Your task to perform on an android device: change keyboard looks Image 0: 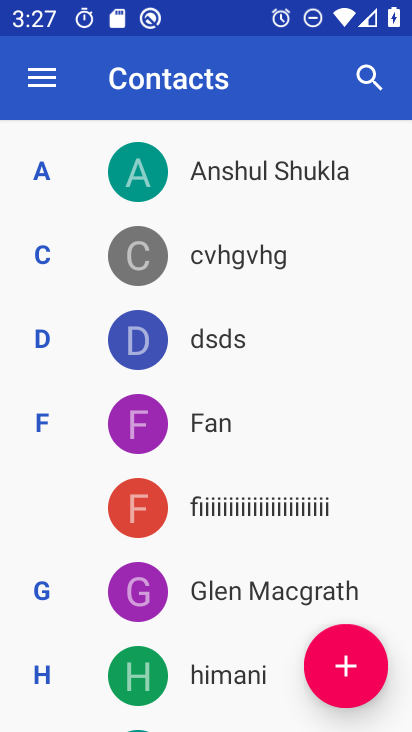
Step 0: press home button
Your task to perform on an android device: change keyboard looks Image 1: 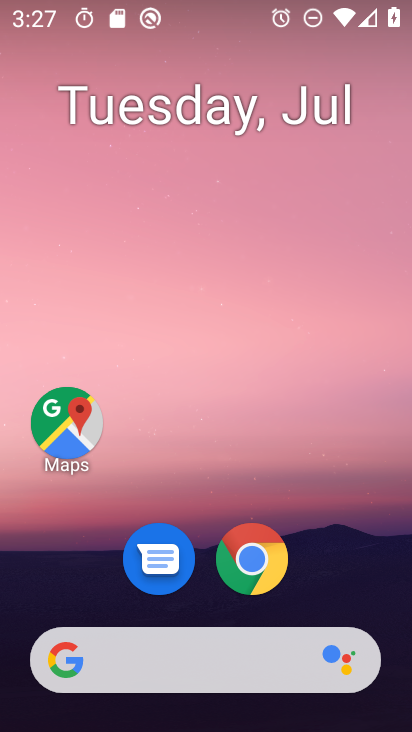
Step 1: drag from (371, 593) to (385, 133)
Your task to perform on an android device: change keyboard looks Image 2: 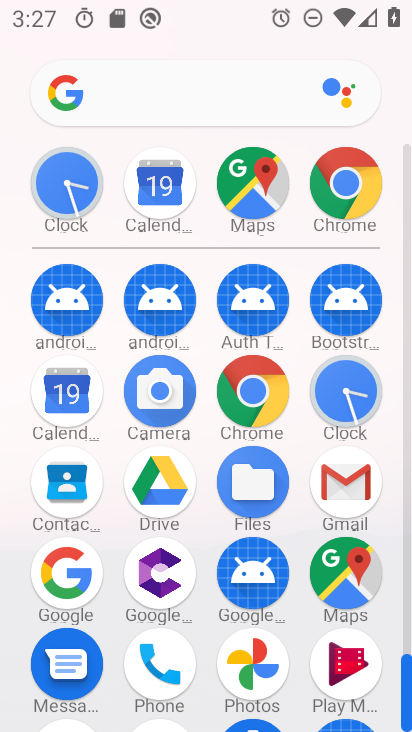
Step 2: drag from (206, 539) to (204, 433)
Your task to perform on an android device: change keyboard looks Image 3: 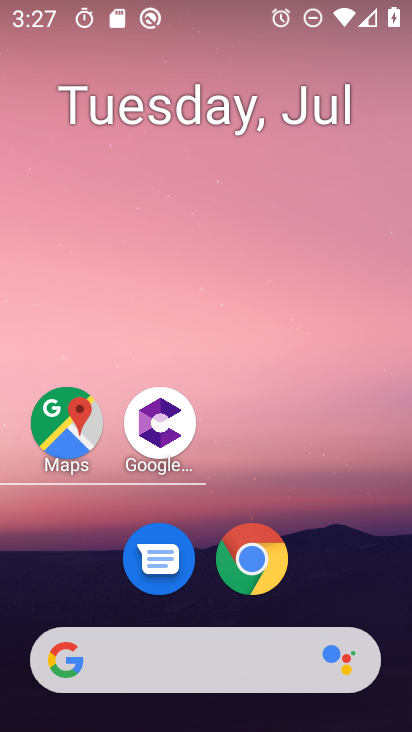
Step 3: drag from (353, 558) to (363, 109)
Your task to perform on an android device: change keyboard looks Image 4: 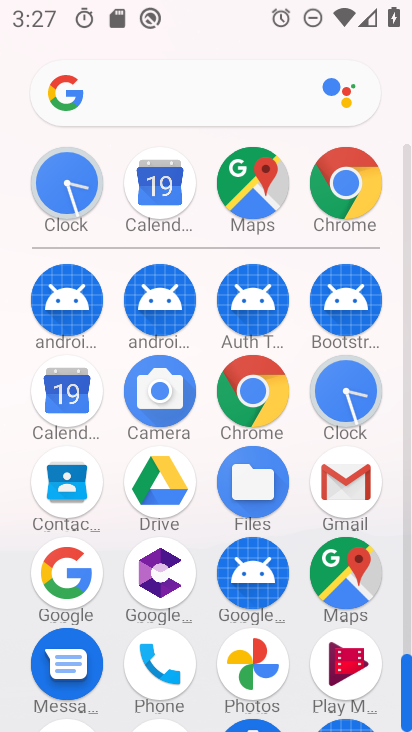
Step 4: drag from (393, 538) to (408, 424)
Your task to perform on an android device: change keyboard looks Image 5: 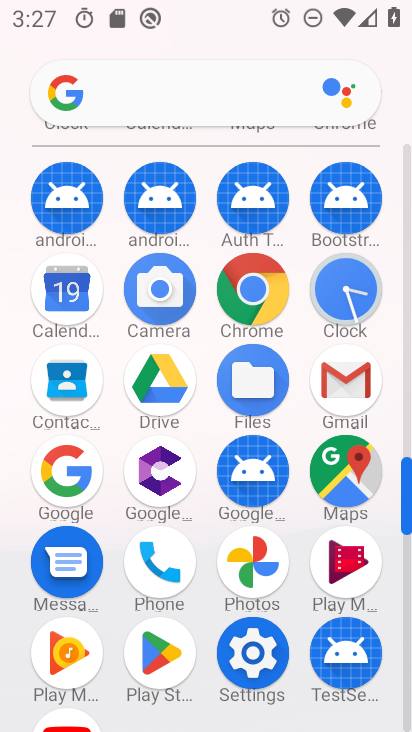
Step 5: click (245, 648)
Your task to perform on an android device: change keyboard looks Image 6: 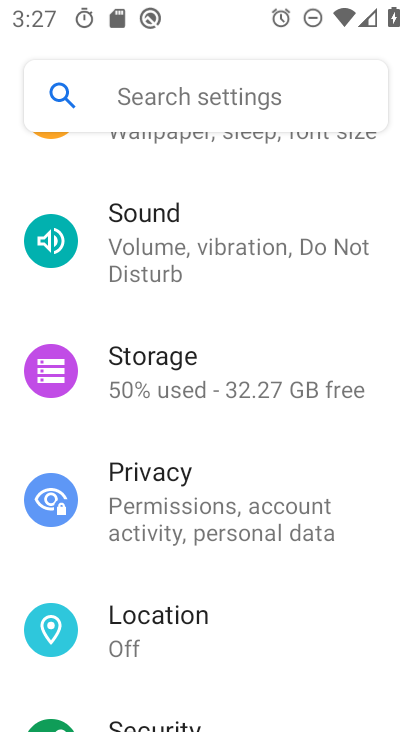
Step 6: drag from (381, 513) to (384, 431)
Your task to perform on an android device: change keyboard looks Image 7: 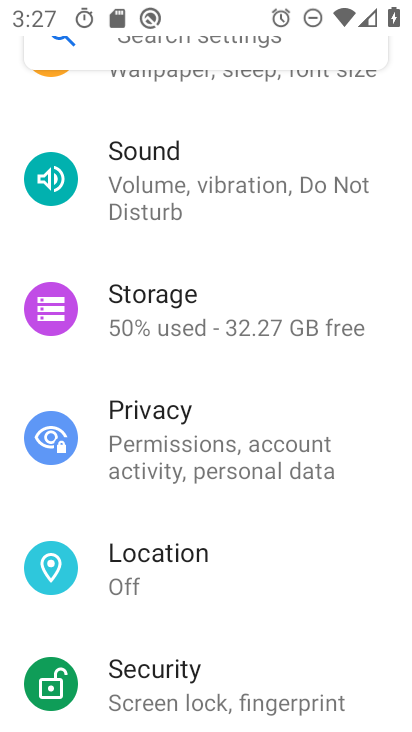
Step 7: drag from (371, 545) to (371, 455)
Your task to perform on an android device: change keyboard looks Image 8: 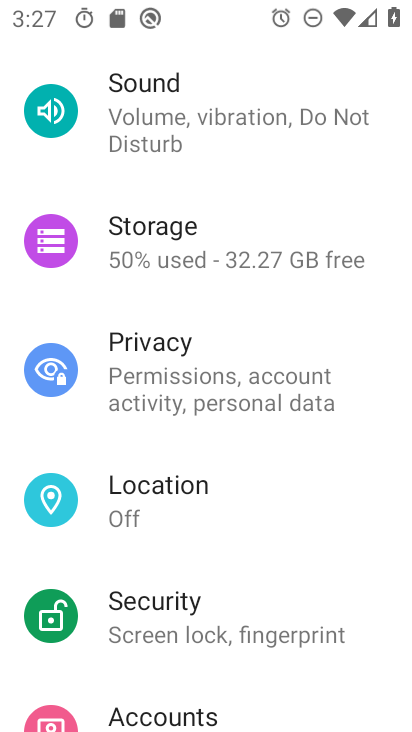
Step 8: drag from (370, 553) to (367, 471)
Your task to perform on an android device: change keyboard looks Image 9: 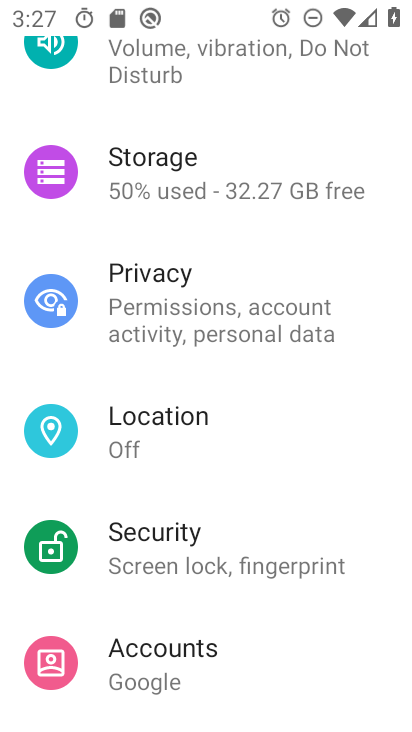
Step 9: drag from (351, 568) to (355, 468)
Your task to perform on an android device: change keyboard looks Image 10: 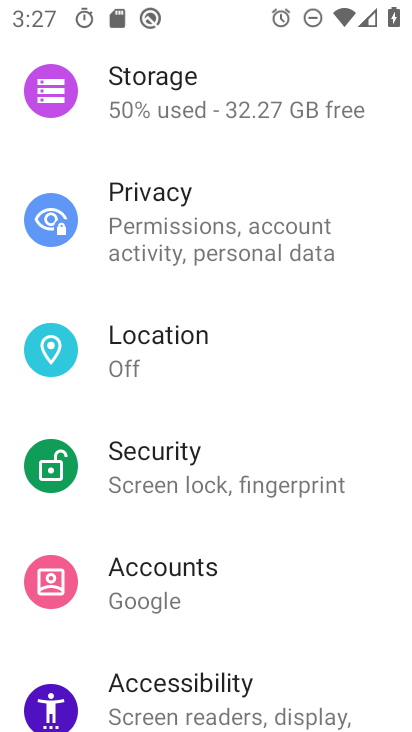
Step 10: drag from (361, 574) to (365, 480)
Your task to perform on an android device: change keyboard looks Image 11: 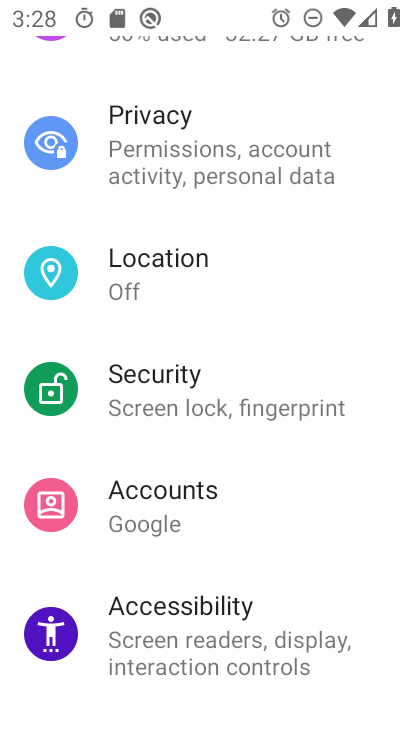
Step 11: drag from (364, 588) to (359, 476)
Your task to perform on an android device: change keyboard looks Image 12: 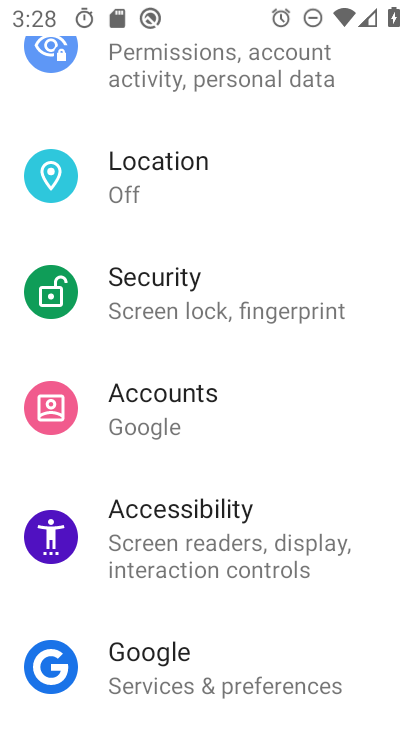
Step 12: drag from (359, 604) to (359, 487)
Your task to perform on an android device: change keyboard looks Image 13: 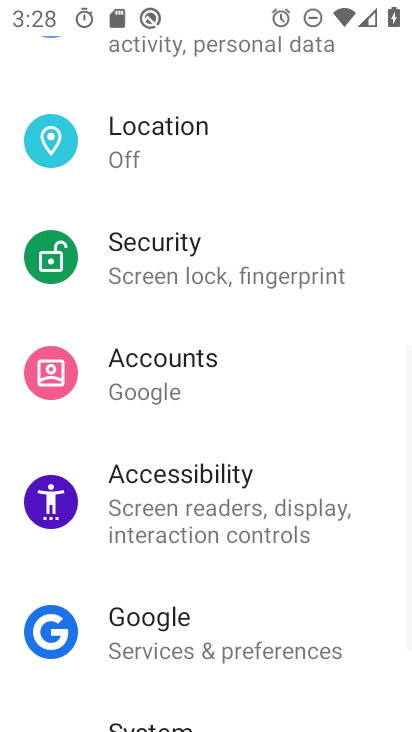
Step 13: drag from (365, 616) to (371, 487)
Your task to perform on an android device: change keyboard looks Image 14: 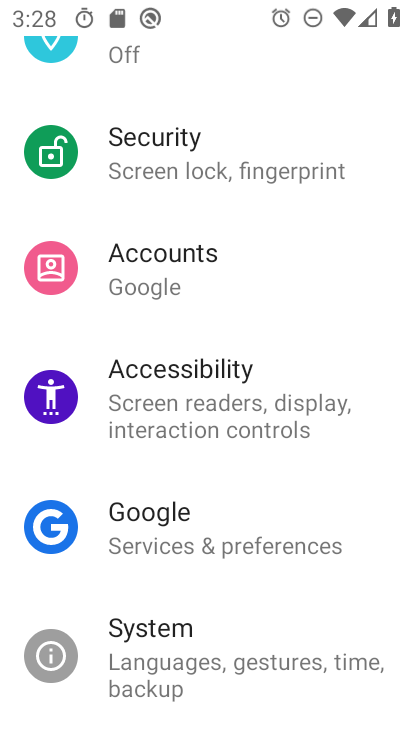
Step 14: drag from (371, 591) to (366, 501)
Your task to perform on an android device: change keyboard looks Image 15: 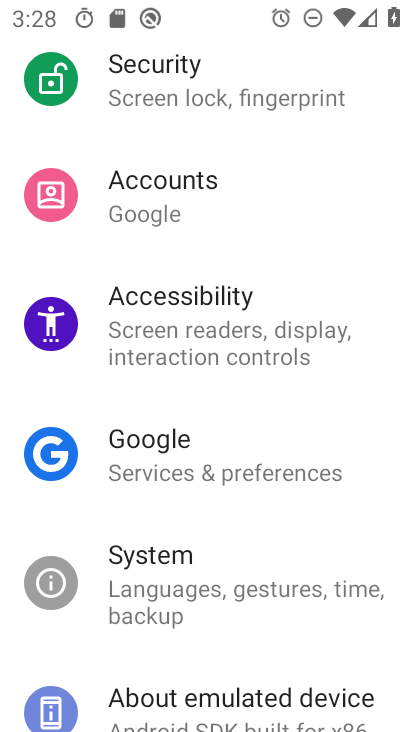
Step 15: click (349, 563)
Your task to perform on an android device: change keyboard looks Image 16: 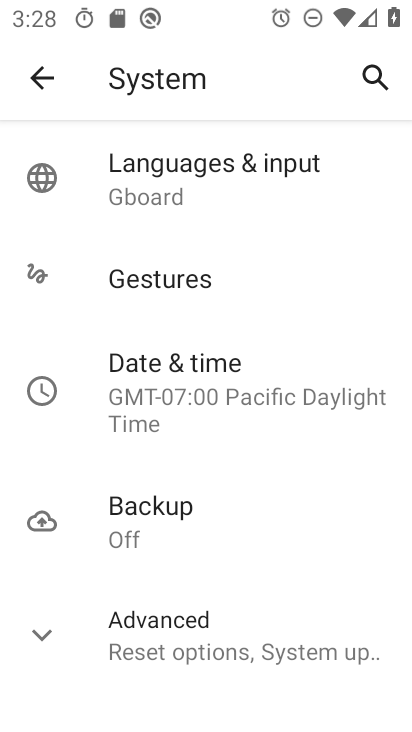
Step 16: click (218, 190)
Your task to perform on an android device: change keyboard looks Image 17: 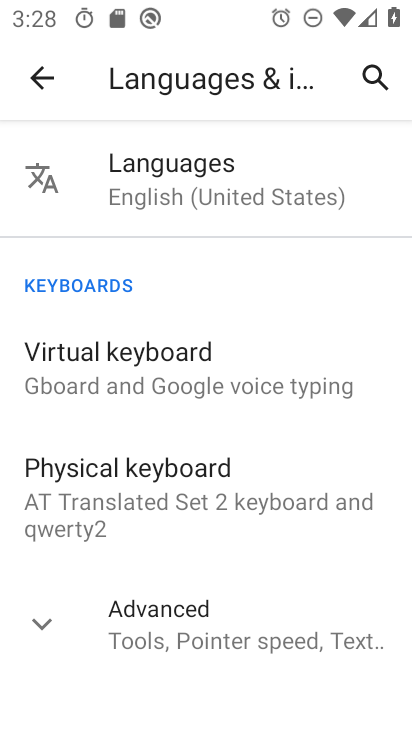
Step 17: click (239, 376)
Your task to perform on an android device: change keyboard looks Image 18: 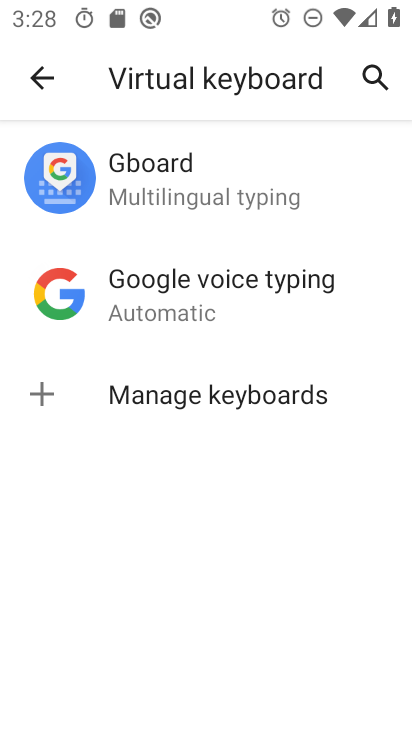
Step 18: click (227, 199)
Your task to perform on an android device: change keyboard looks Image 19: 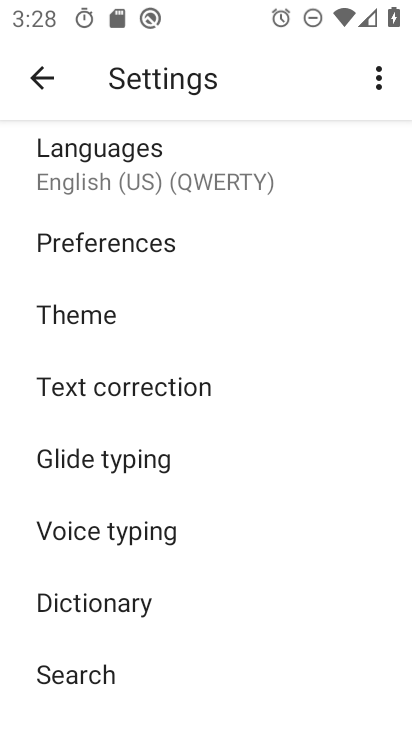
Step 19: click (133, 325)
Your task to perform on an android device: change keyboard looks Image 20: 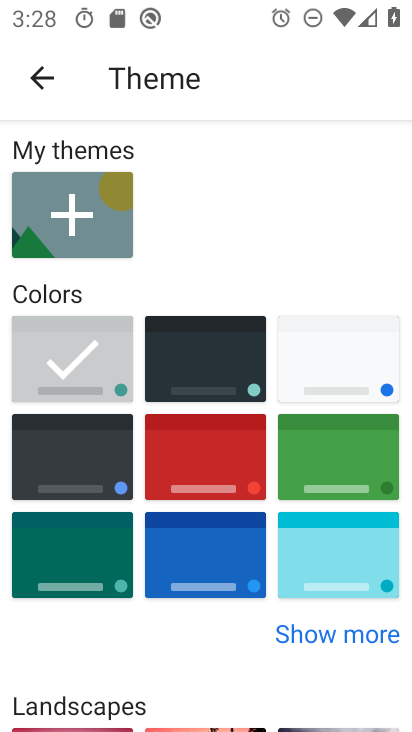
Step 20: click (200, 463)
Your task to perform on an android device: change keyboard looks Image 21: 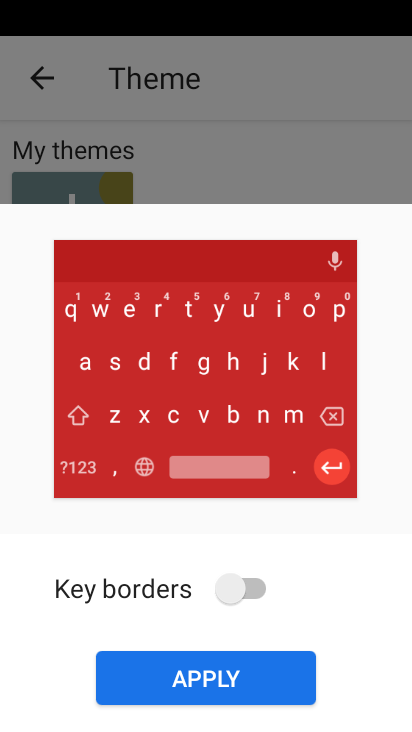
Step 21: click (253, 696)
Your task to perform on an android device: change keyboard looks Image 22: 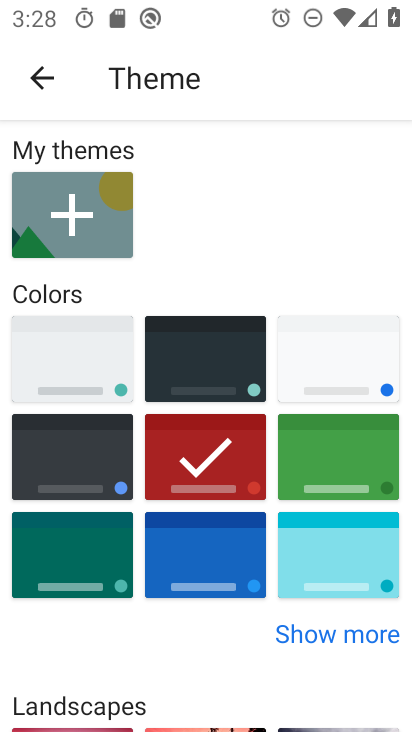
Step 22: task complete